Your task to perform on an android device: turn notification dots on Image 0: 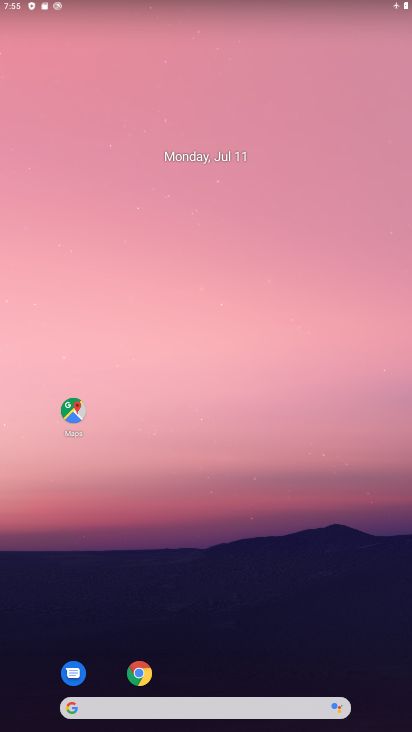
Step 0: drag from (173, 677) to (201, 462)
Your task to perform on an android device: turn notification dots on Image 1: 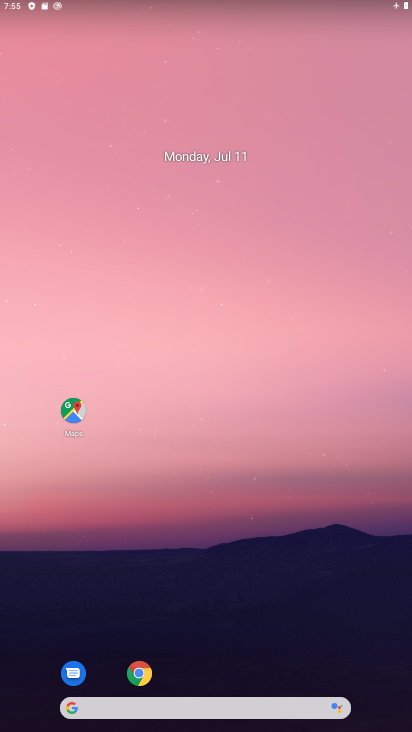
Step 1: drag from (237, 692) to (232, 228)
Your task to perform on an android device: turn notification dots on Image 2: 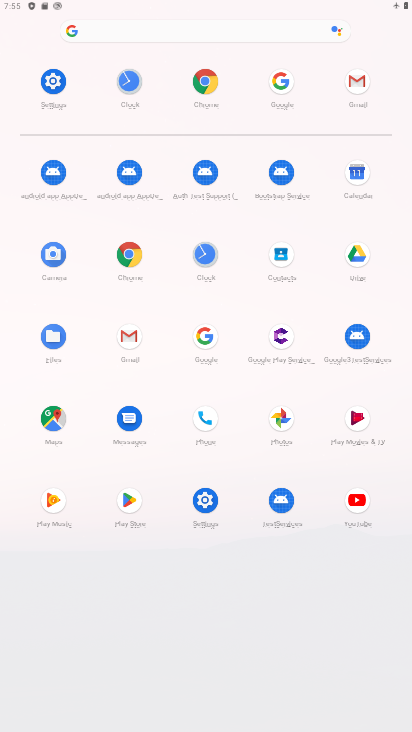
Step 2: click (55, 97)
Your task to perform on an android device: turn notification dots on Image 3: 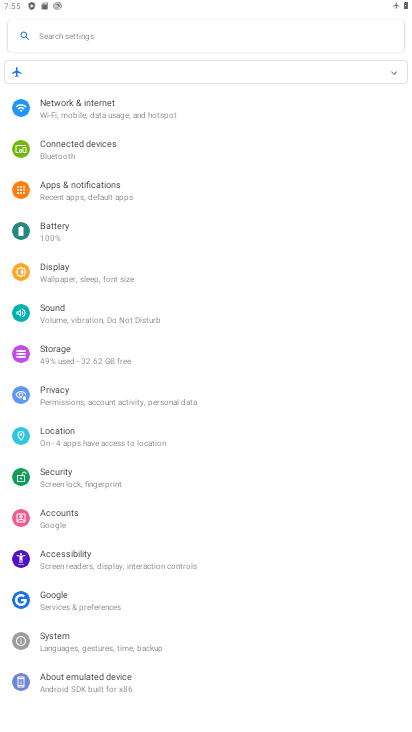
Step 3: click (77, 202)
Your task to perform on an android device: turn notification dots on Image 4: 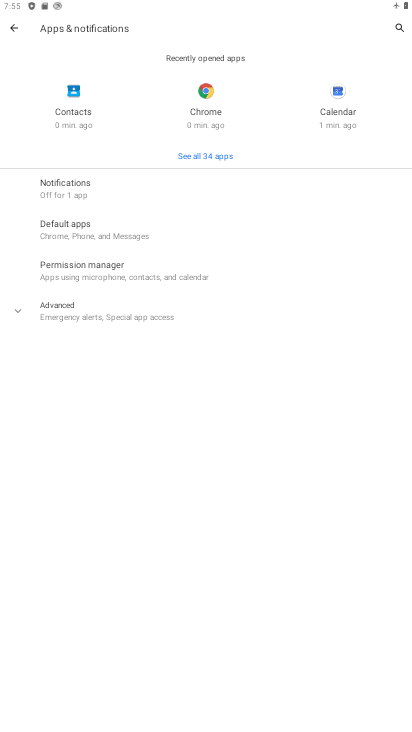
Step 4: click (70, 195)
Your task to perform on an android device: turn notification dots on Image 5: 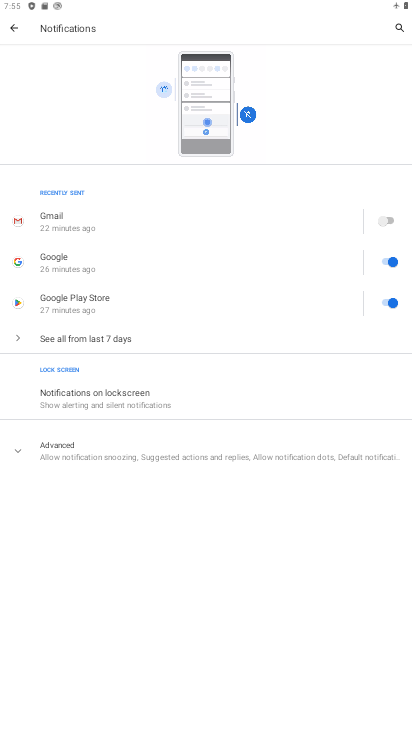
Step 5: click (93, 451)
Your task to perform on an android device: turn notification dots on Image 6: 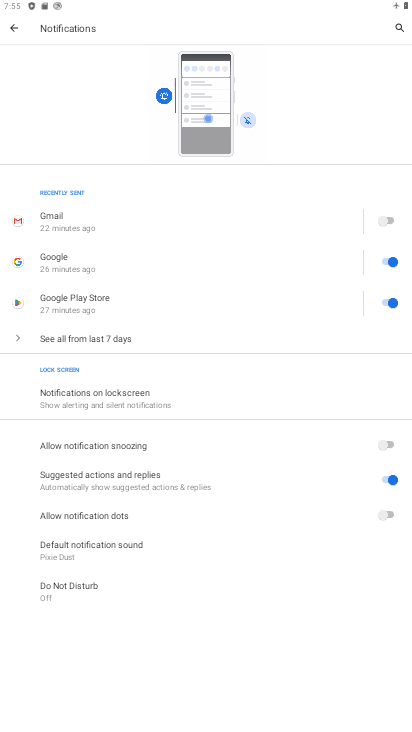
Step 6: click (397, 511)
Your task to perform on an android device: turn notification dots on Image 7: 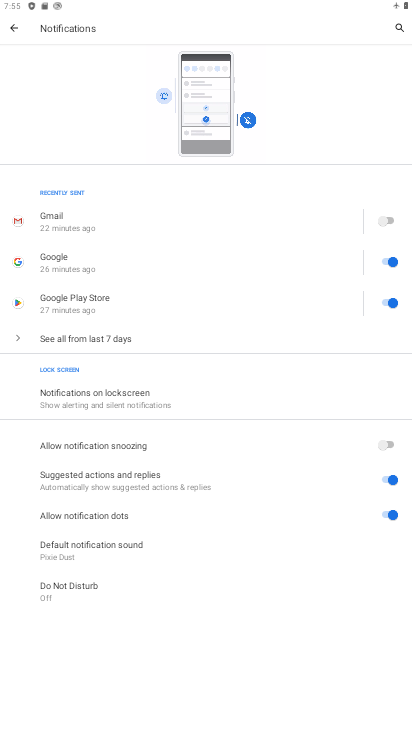
Step 7: task complete